Your task to perform on an android device: Go to wifi settings Image 0: 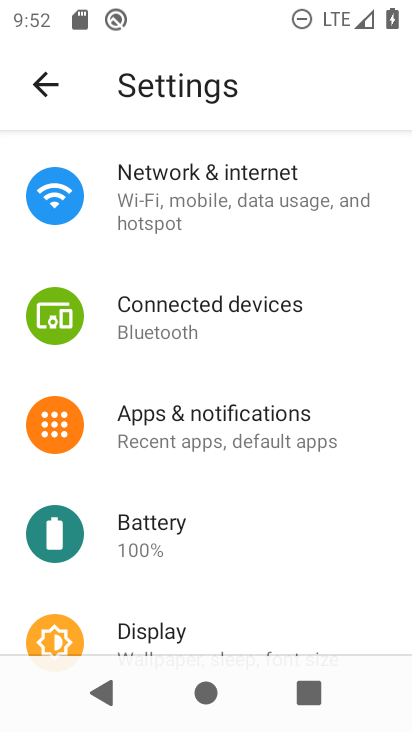
Step 0: click (178, 220)
Your task to perform on an android device: Go to wifi settings Image 1: 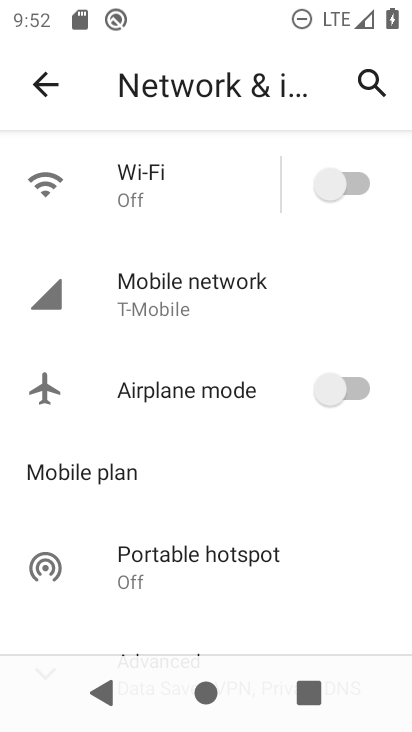
Step 1: click (142, 189)
Your task to perform on an android device: Go to wifi settings Image 2: 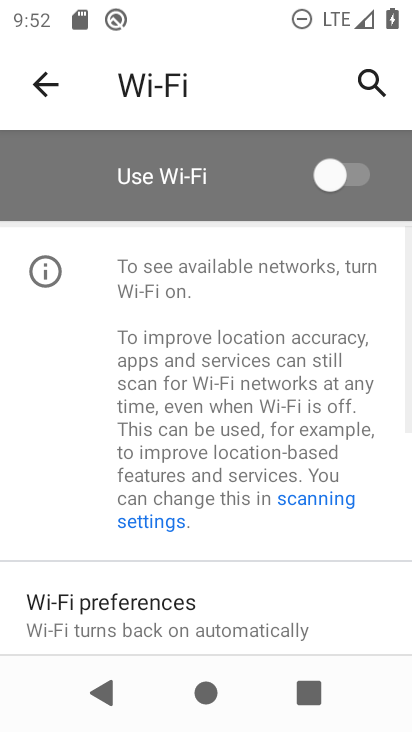
Step 2: task complete